Your task to perform on an android device: Open the calendar and show me this week's events? Image 0: 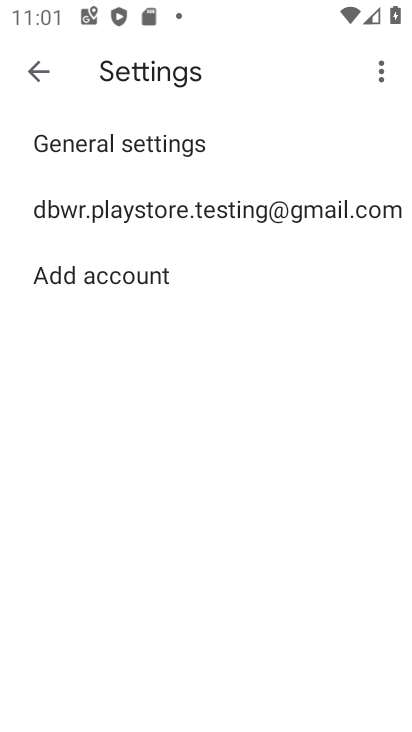
Step 0: press home button
Your task to perform on an android device: Open the calendar and show me this week's events? Image 1: 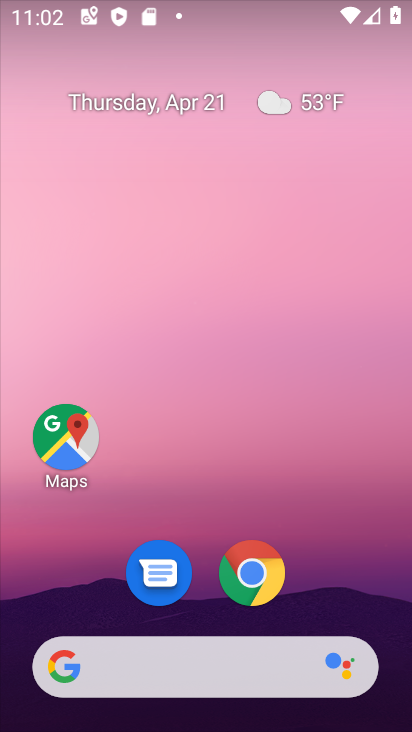
Step 1: drag from (346, 476) to (346, 99)
Your task to perform on an android device: Open the calendar and show me this week's events? Image 2: 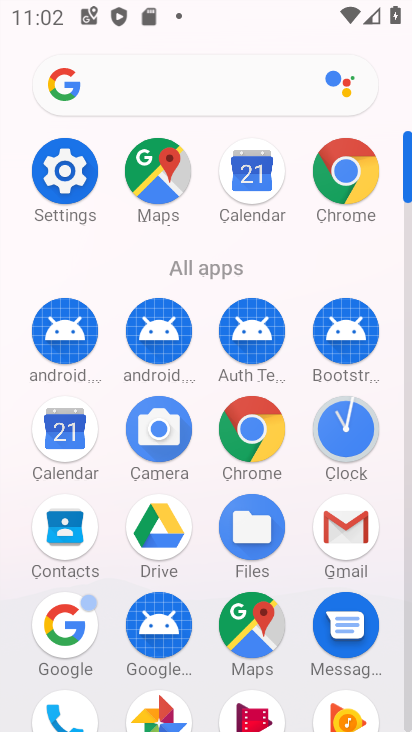
Step 2: click (58, 428)
Your task to perform on an android device: Open the calendar and show me this week's events? Image 3: 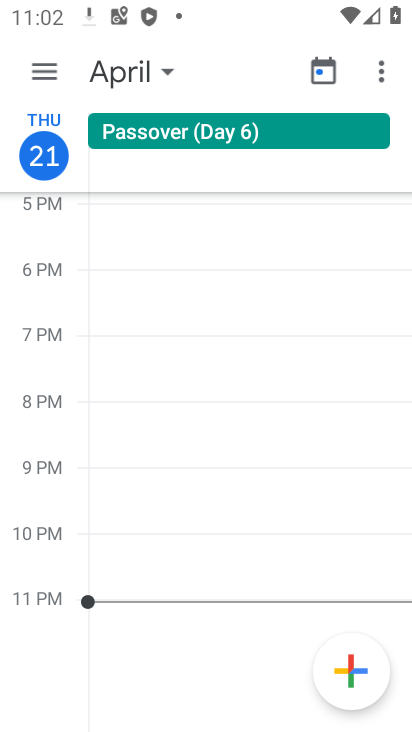
Step 3: click (152, 66)
Your task to perform on an android device: Open the calendar and show me this week's events? Image 4: 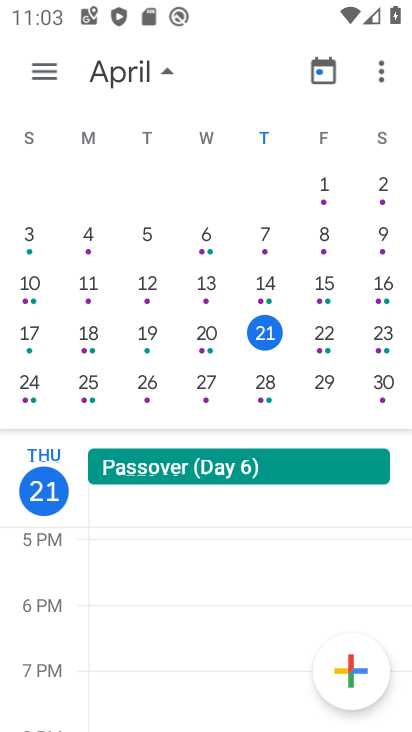
Step 4: click (279, 332)
Your task to perform on an android device: Open the calendar and show me this week's events? Image 5: 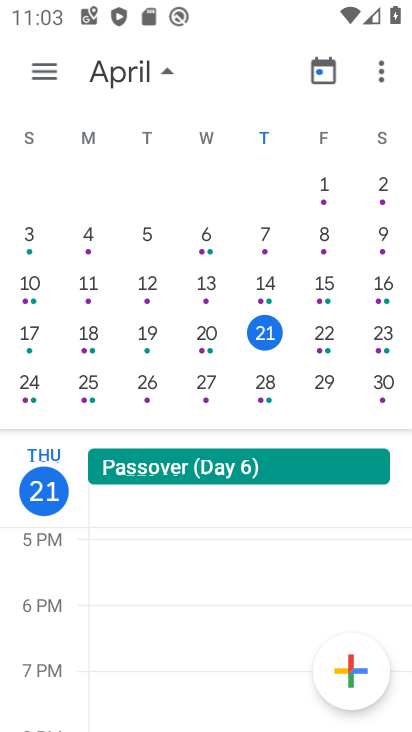
Step 5: task complete